Your task to perform on an android device: Go to settings Image 0: 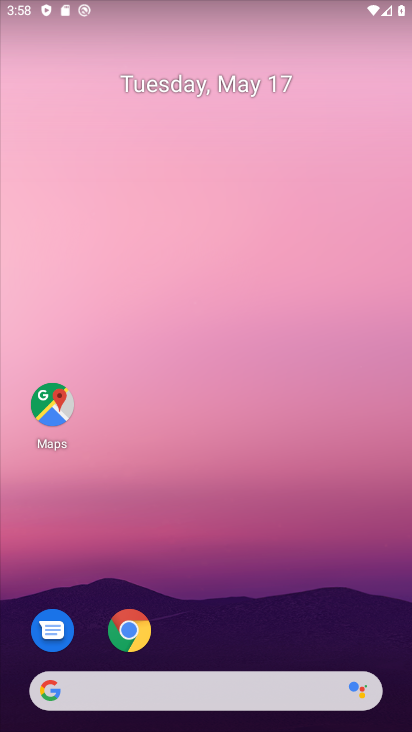
Step 0: drag from (216, 720) to (192, 183)
Your task to perform on an android device: Go to settings Image 1: 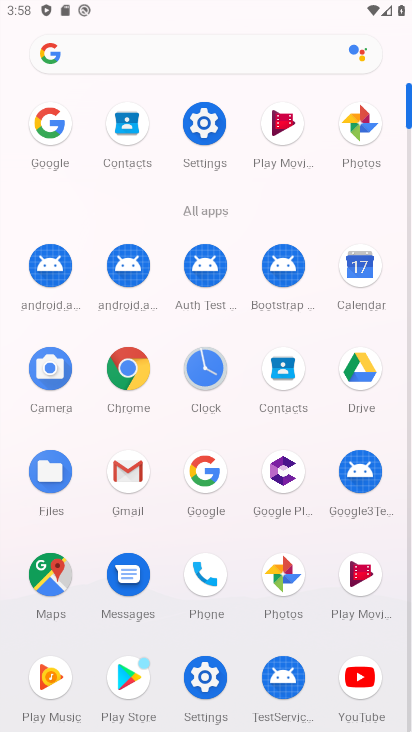
Step 1: click (210, 128)
Your task to perform on an android device: Go to settings Image 2: 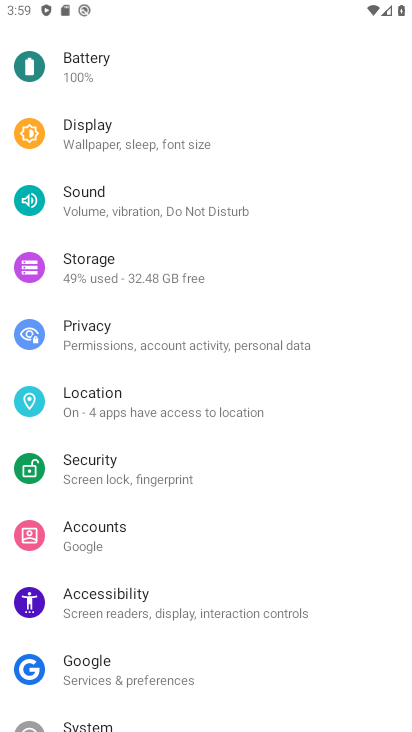
Step 2: task complete